Your task to perform on an android device: empty trash in google photos Image 0: 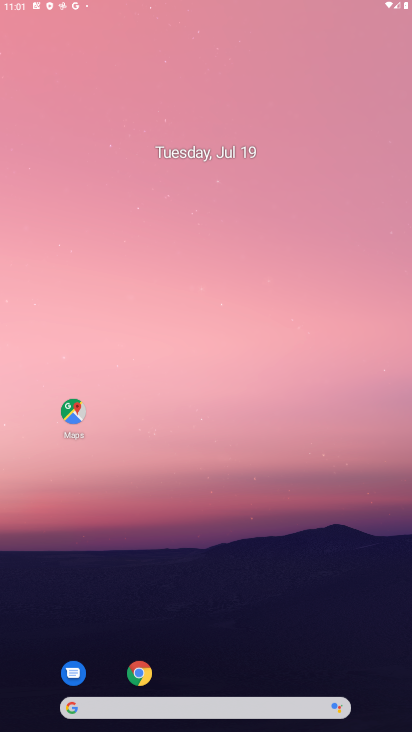
Step 0: press home button
Your task to perform on an android device: empty trash in google photos Image 1: 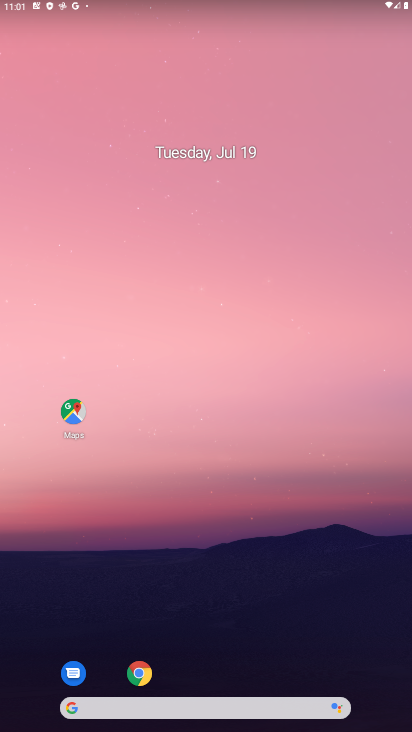
Step 1: drag from (219, 671) to (223, 49)
Your task to perform on an android device: empty trash in google photos Image 2: 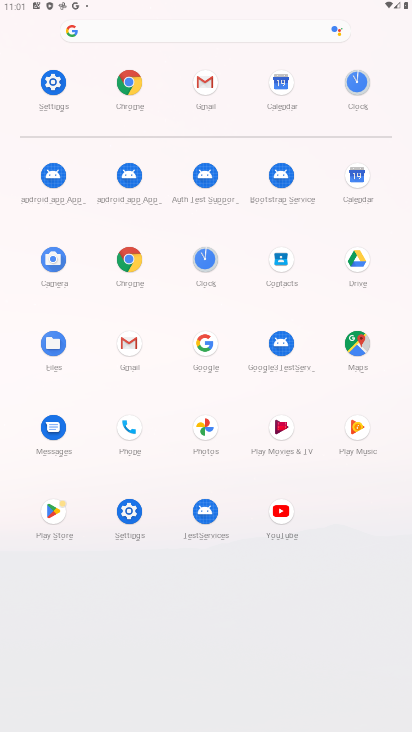
Step 2: click (207, 423)
Your task to perform on an android device: empty trash in google photos Image 3: 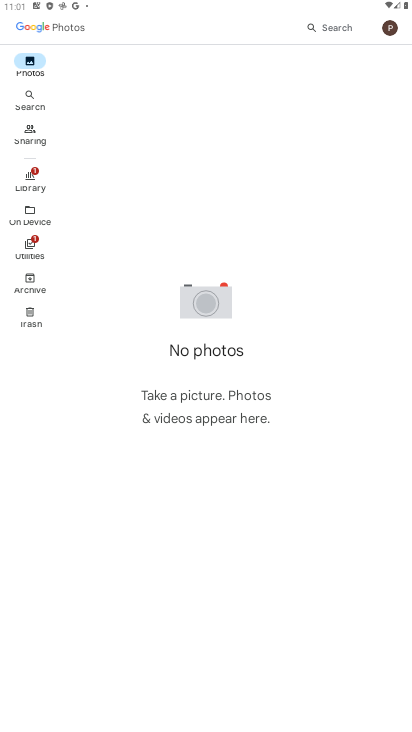
Step 3: click (34, 319)
Your task to perform on an android device: empty trash in google photos Image 4: 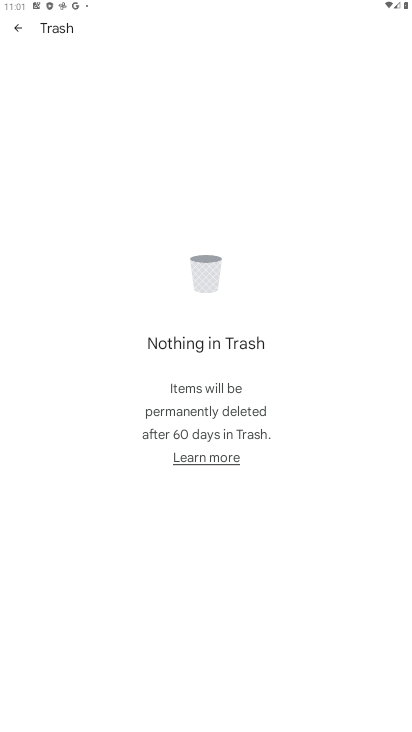
Step 4: task complete